Your task to perform on an android device: Is it going to rain this weekend? Image 0: 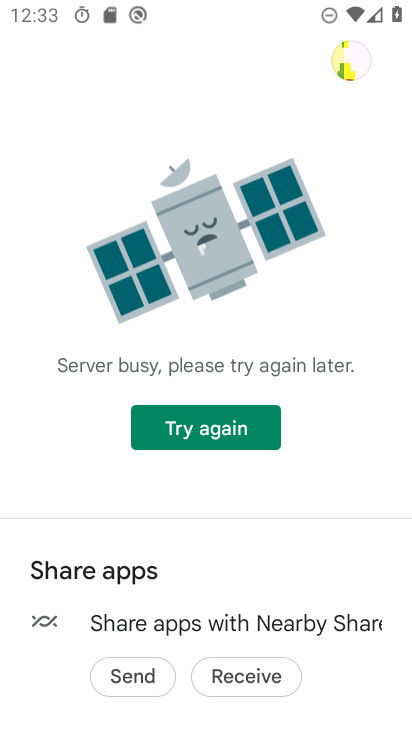
Step 0: press home button
Your task to perform on an android device: Is it going to rain this weekend? Image 1: 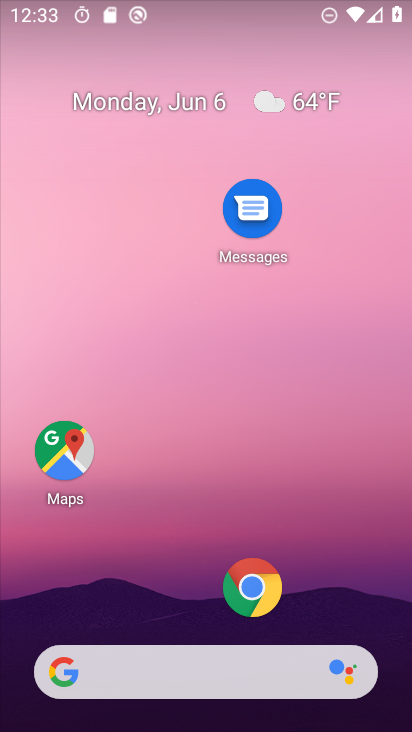
Step 1: click (319, 98)
Your task to perform on an android device: Is it going to rain this weekend? Image 2: 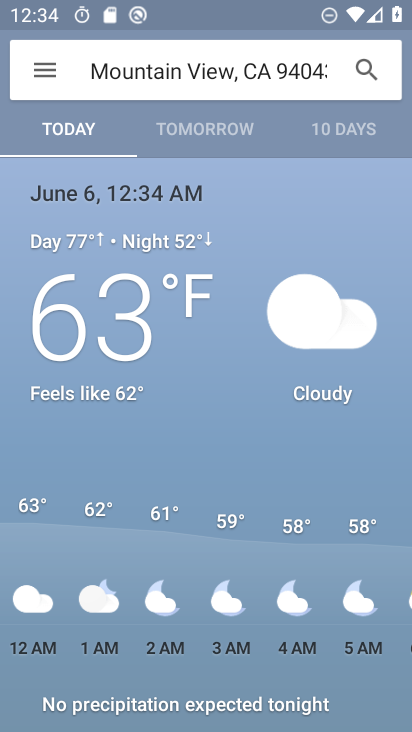
Step 2: click (330, 145)
Your task to perform on an android device: Is it going to rain this weekend? Image 3: 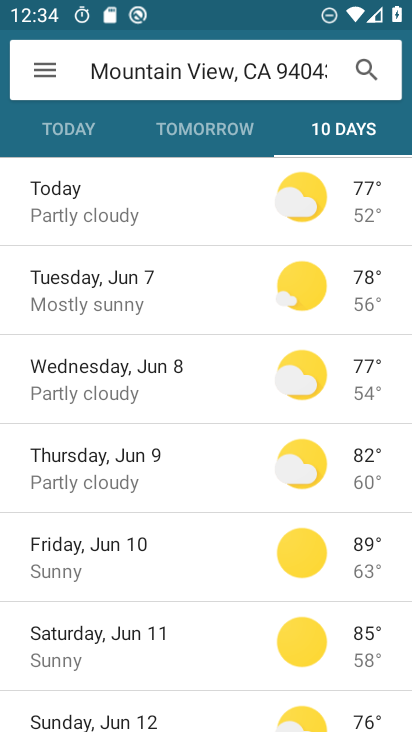
Step 3: task complete